Your task to perform on an android device: turn on priority inbox in the gmail app Image 0: 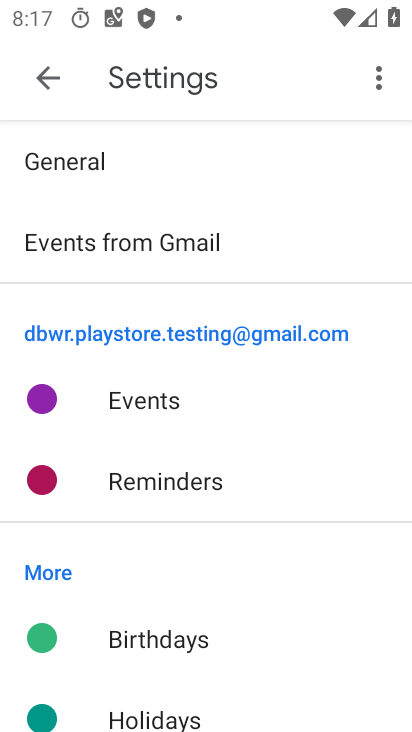
Step 0: press home button
Your task to perform on an android device: turn on priority inbox in the gmail app Image 1: 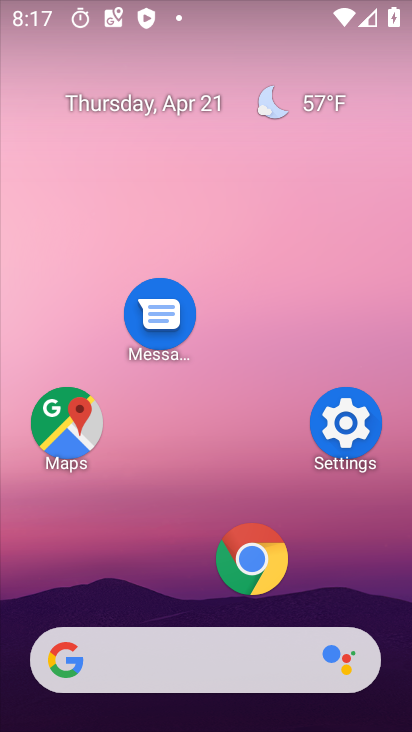
Step 1: drag from (197, 565) to (52, 124)
Your task to perform on an android device: turn on priority inbox in the gmail app Image 2: 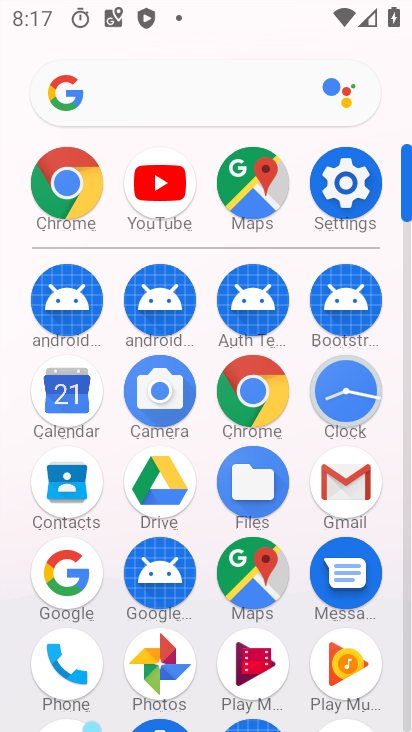
Step 2: click (352, 474)
Your task to perform on an android device: turn on priority inbox in the gmail app Image 3: 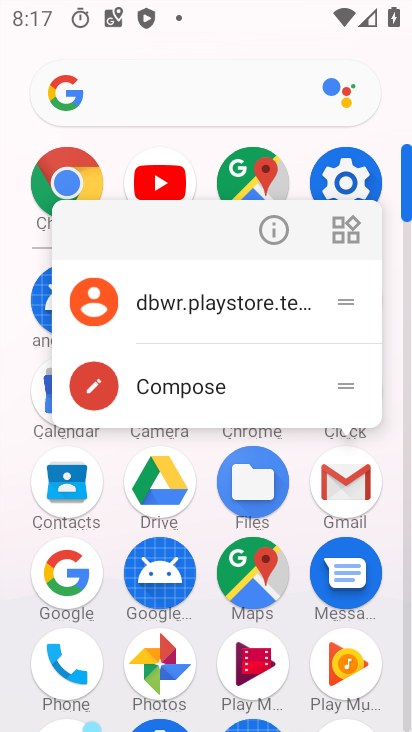
Step 3: click (346, 473)
Your task to perform on an android device: turn on priority inbox in the gmail app Image 4: 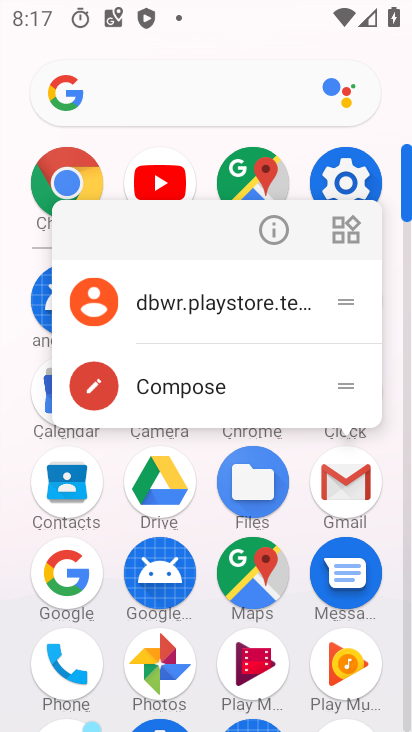
Step 4: click (348, 475)
Your task to perform on an android device: turn on priority inbox in the gmail app Image 5: 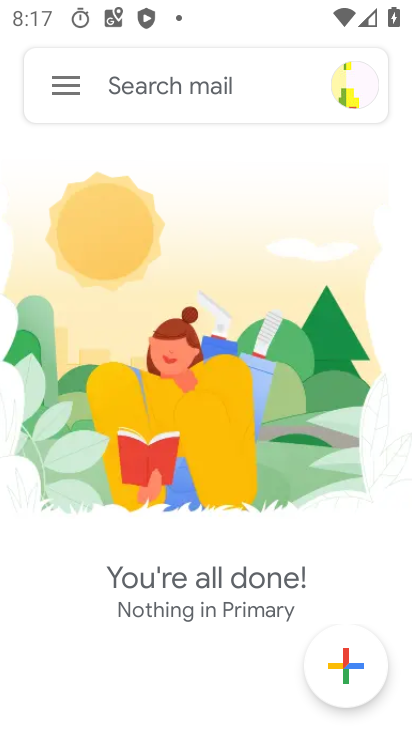
Step 5: click (75, 82)
Your task to perform on an android device: turn on priority inbox in the gmail app Image 6: 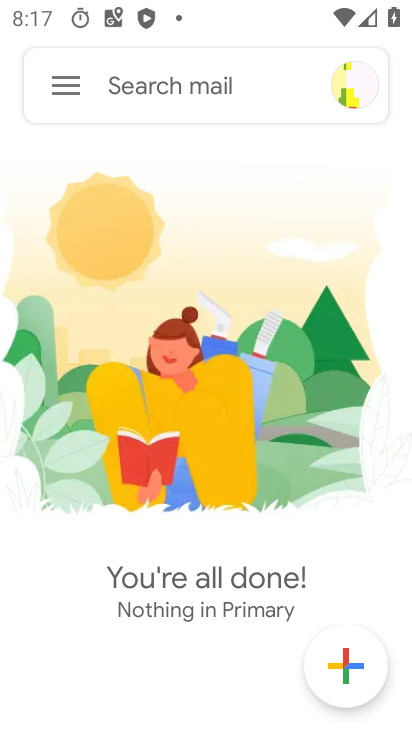
Step 6: drag from (75, 83) to (75, 144)
Your task to perform on an android device: turn on priority inbox in the gmail app Image 7: 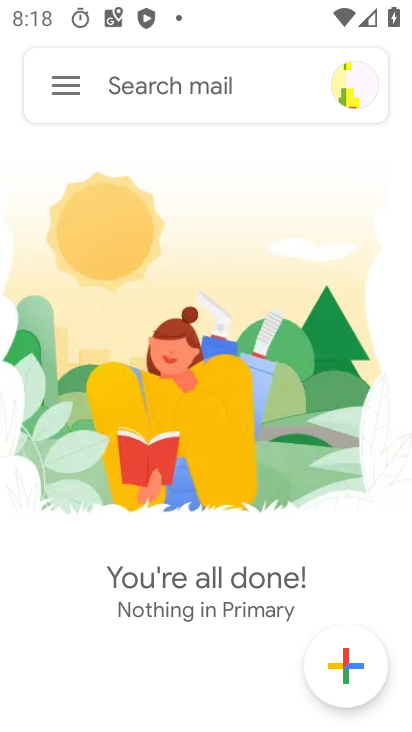
Step 7: click (73, 89)
Your task to perform on an android device: turn on priority inbox in the gmail app Image 8: 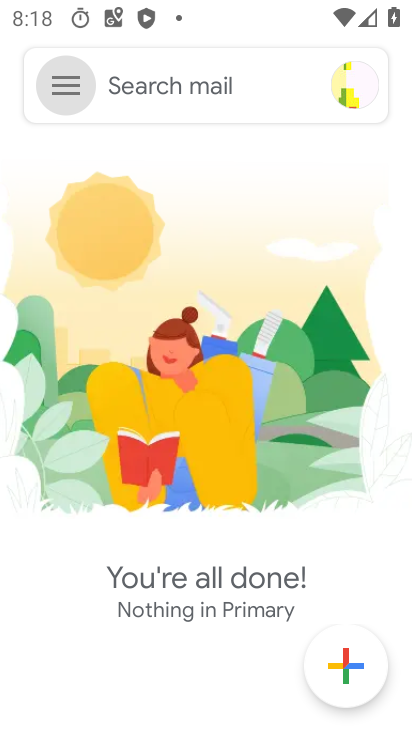
Step 8: click (72, 80)
Your task to perform on an android device: turn on priority inbox in the gmail app Image 9: 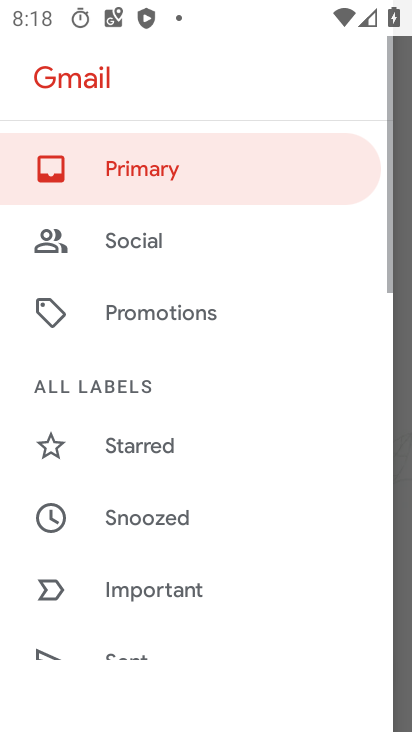
Step 9: click (72, 80)
Your task to perform on an android device: turn on priority inbox in the gmail app Image 10: 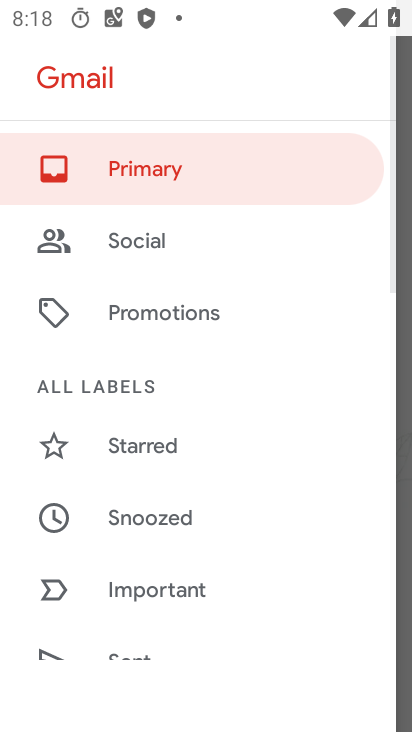
Step 10: drag from (221, 576) to (106, 278)
Your task to perform on an android device: turn on priority inbox in the gmail app Image 11: 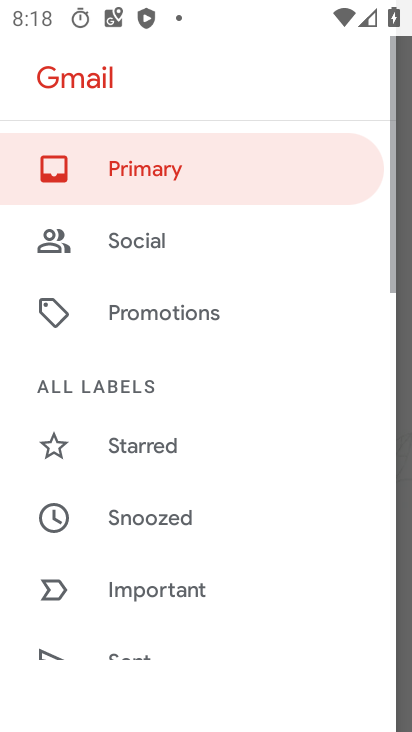
Step 11: drag from (184, 405) to (199, 165)
Your task to perform on an android device: turn on priority inbox in the gmail app Image 12: 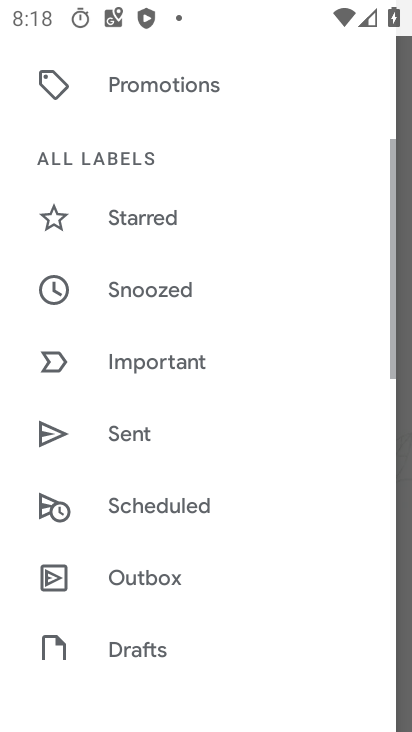
Step 12: drag from (223, 494) to (223, 152)
Your task to perform on an android device: turn on priority inbox in the gmail app Image 13: 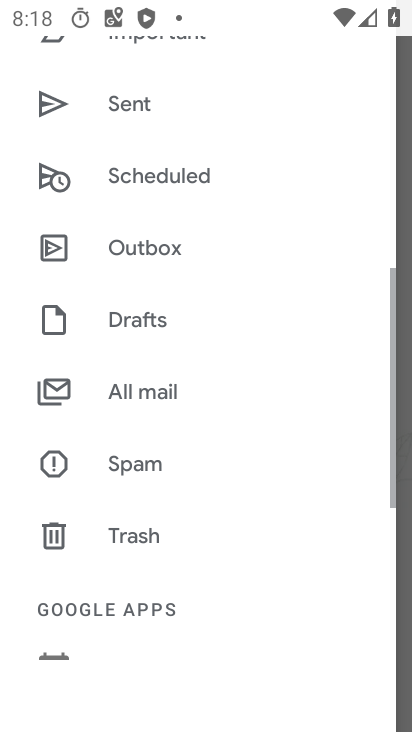
Step 13: drag from (251, 423) to (318, 75)
Your task to perform on an android device: turn on priority inbox in the gmail app Image 14: 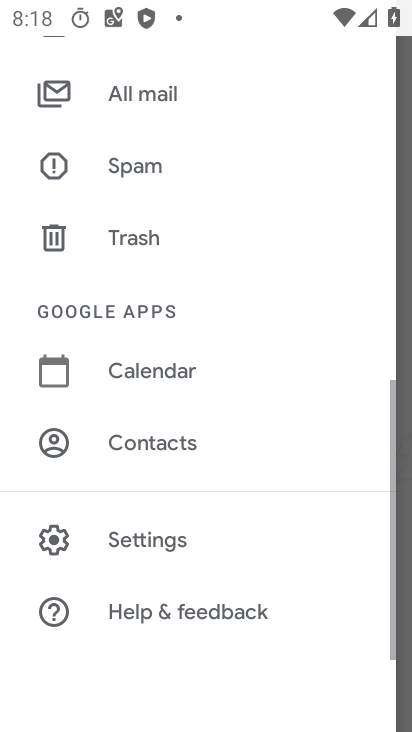
Step 14: drag from (255, 513) to (300, 70)
Your task to perform on an android device: turn on priority inbox in the gmail app Image 15: 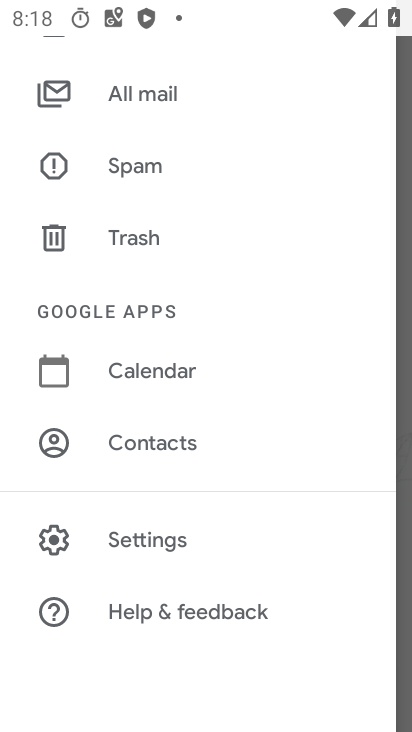
Step 15: click (148, 543)
Your task to perform on an android device: turn on priority inbox in the gmail app Image 16: 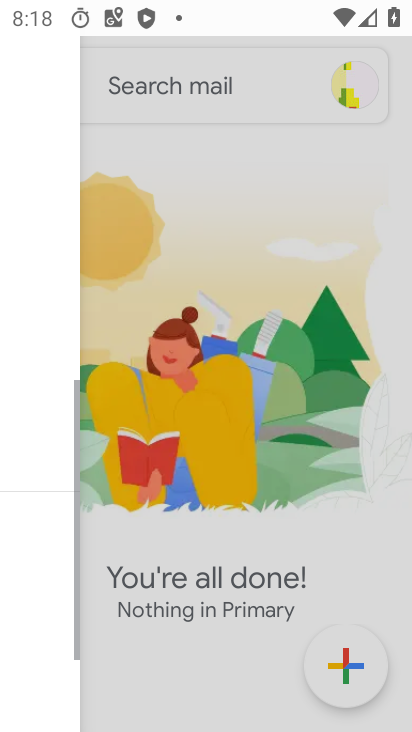
Step 16: click (149, 541)
Your task to perform on an android device: turn on priority inbox in the gmail app Image 17: 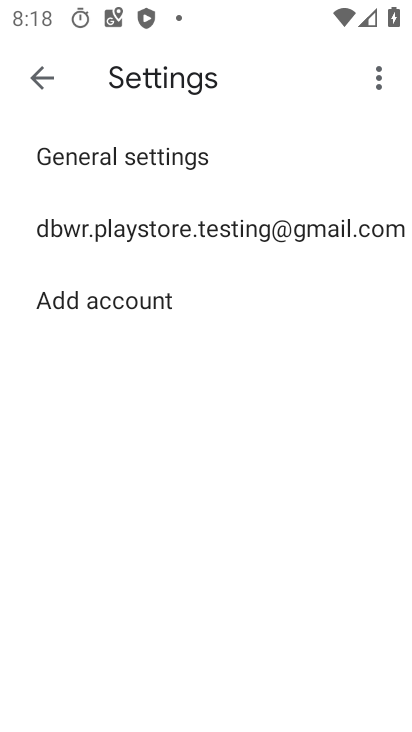
Step 17: click (157, 216)
Your task to perform on an android device: turn on priority inbox in the gmail app Image 18: 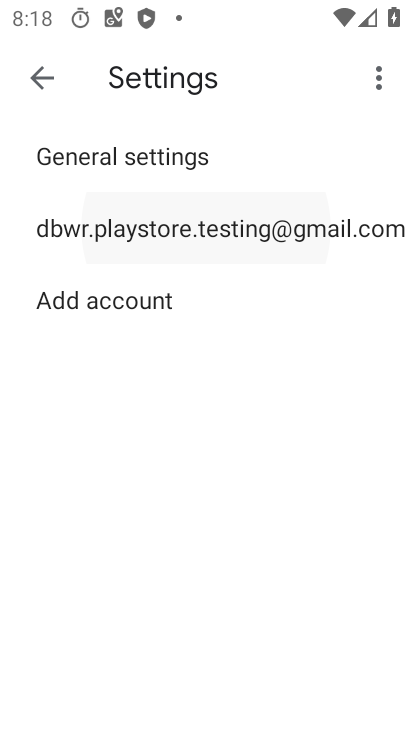
Step 18: click (166, 233)
Your task to perform on an android device: turn on priority inbox in the gmail app Image 19: 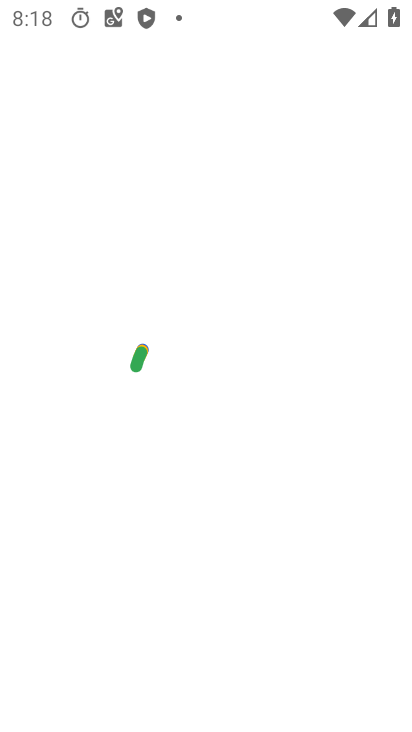
Step 19: press back button
Your task to perform on an android device: turn on priority inbox in the gmail app Image 20: 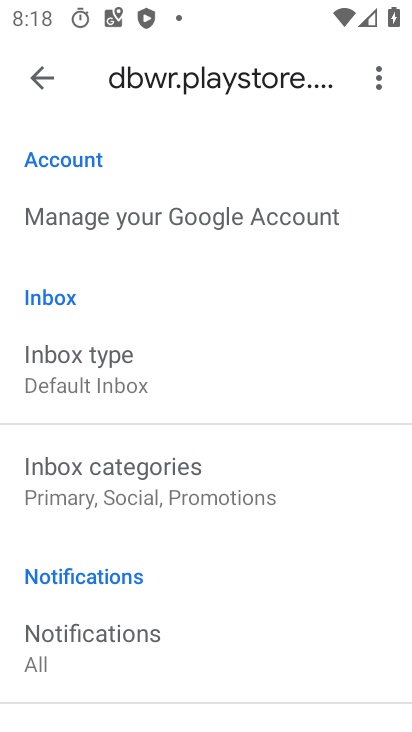
Step 20: click (70, 382)
Your task to perform on an android device: turn on priority inbox in the gmail app Image 21: 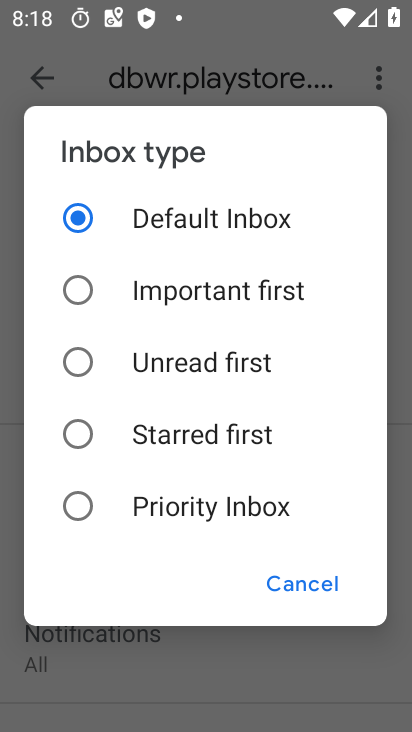
Step 21: click (66, 506)
Your task to perform on an android device: turn on priority inbox in the gmail app Image 22: 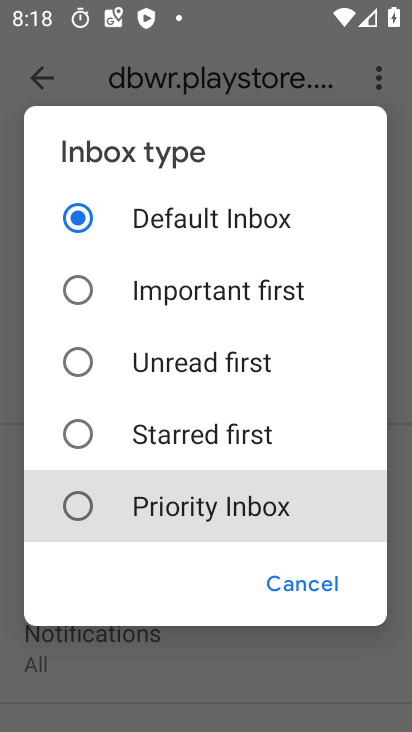
Step 22: click (70, 477)
Your task to perform on an android device: turn on priority inbox in the gmail app Image 23: 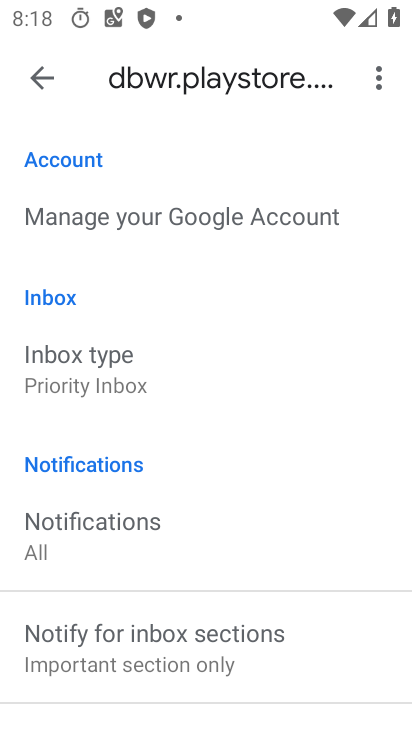
Step 23: task complete